Your task to perform on an android device: Search for pizza restaurants on Maps Image 0: 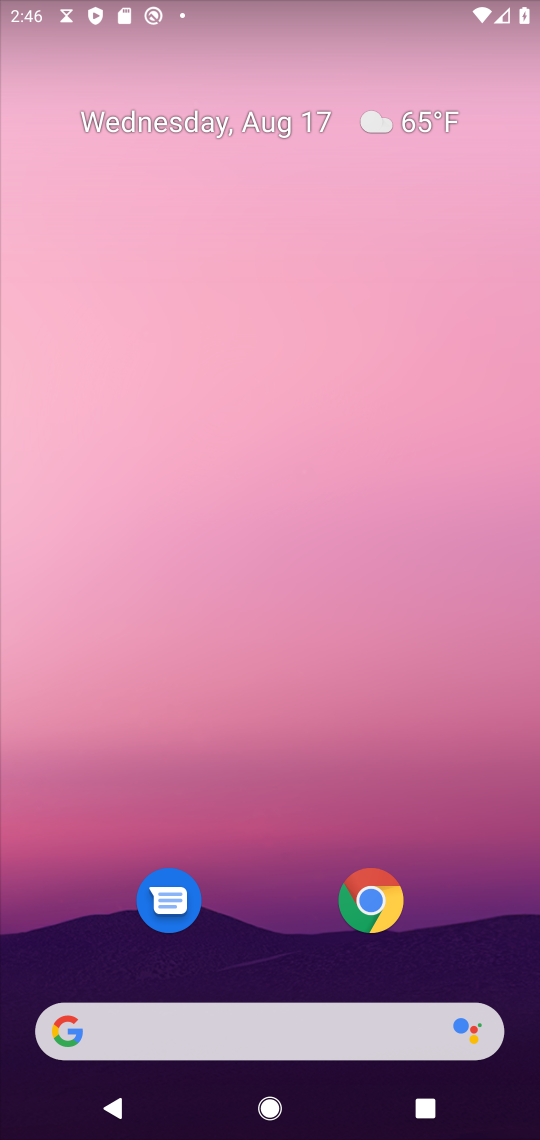
Step 0: drag from (233, 1025) to (305, 289)
Your task to perform on an android device: Search for pizza restaurants on Maps Image 1: 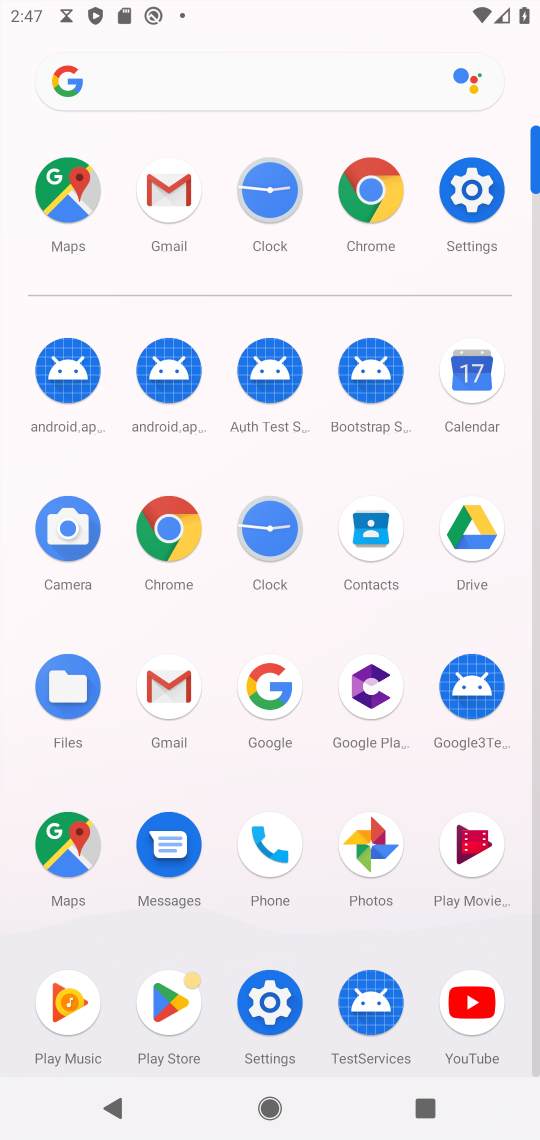
Step 1: click (70, 849)
Your task to perform on an android device: Search for pizza restaurants on Maps Image 2: 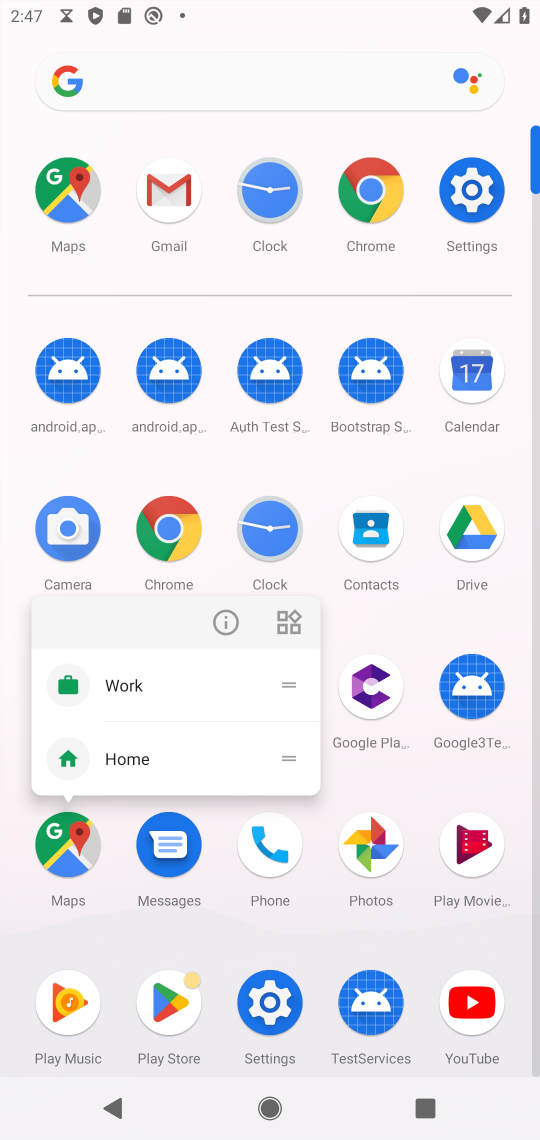
Step 2: click (70, 849)
Your task to perform on an android device: Search for pizza restaurants on Maps Image 3: 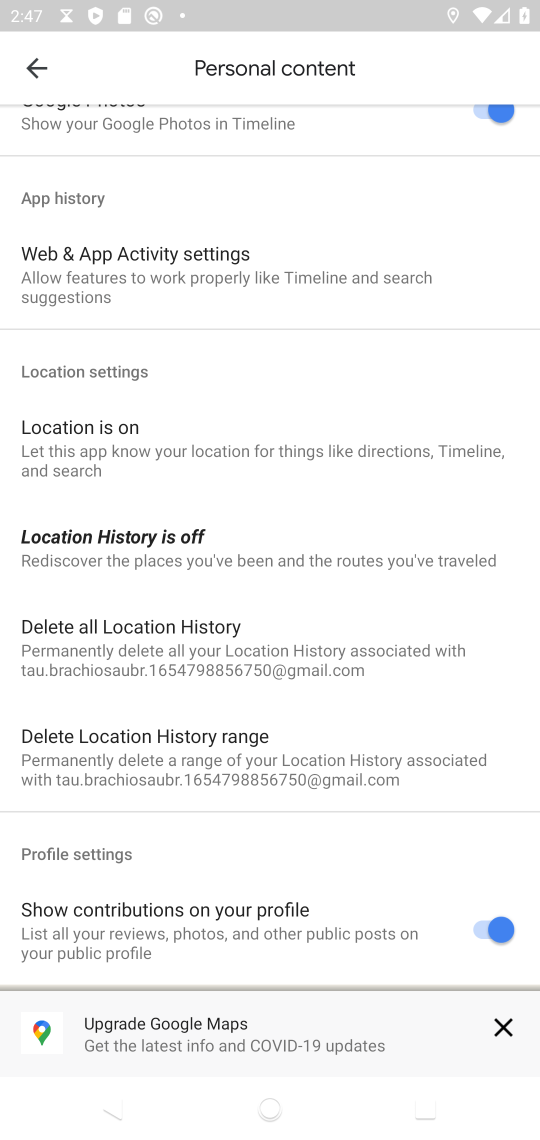
Step 3: press back button
Your task to perform on an android device: Search for pizza restaurants on Maps Image 4: 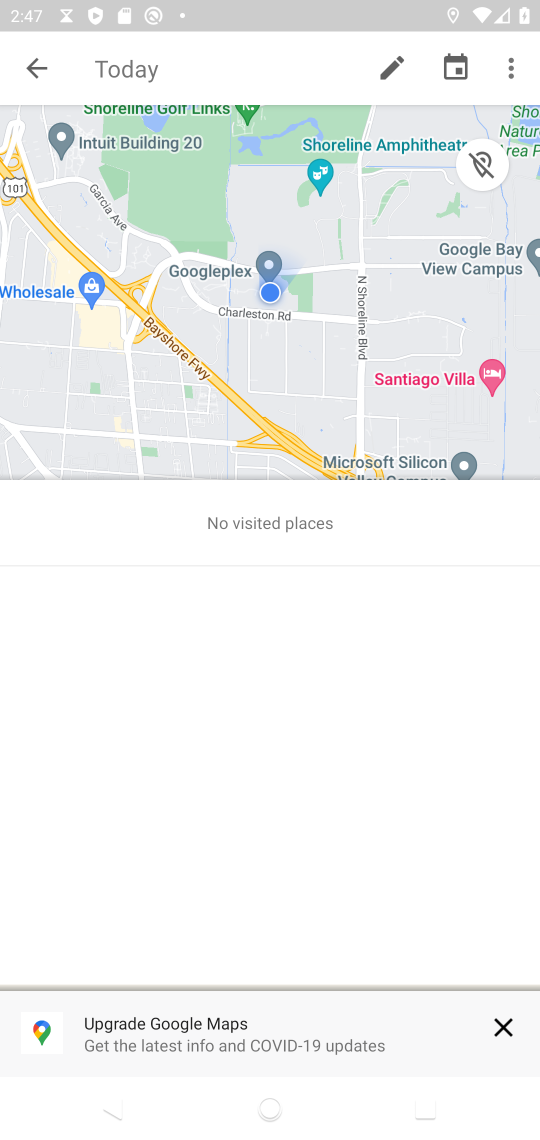
Step 4: press back button
Your task to perform on an android device: Search for pizza restaurants on Maps Image 5: 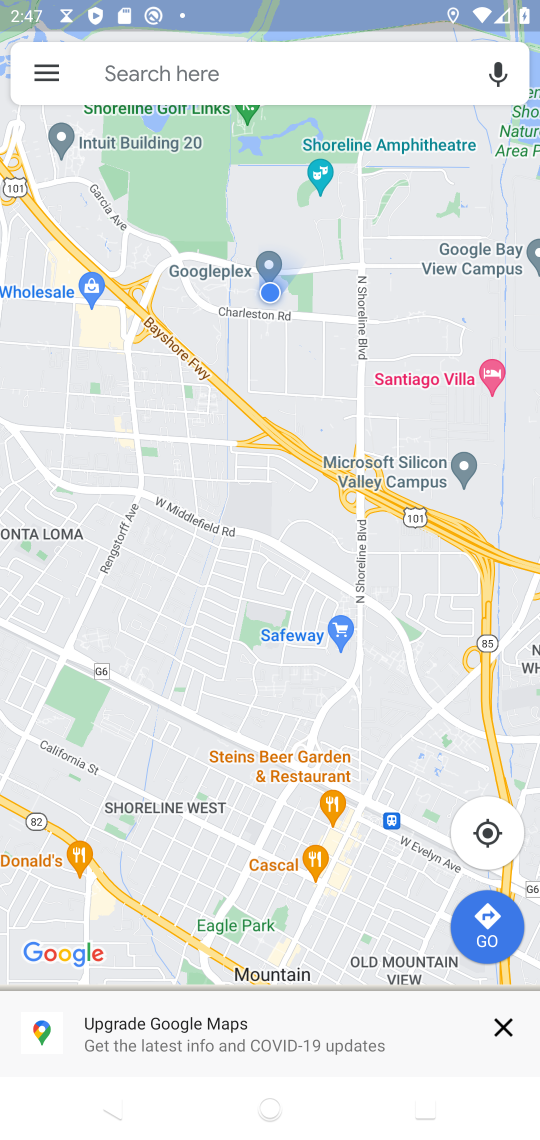
Step 5: click (239, 72)
Your task to perform on an android device: Search for pizza restaurants on Maps Image 6: 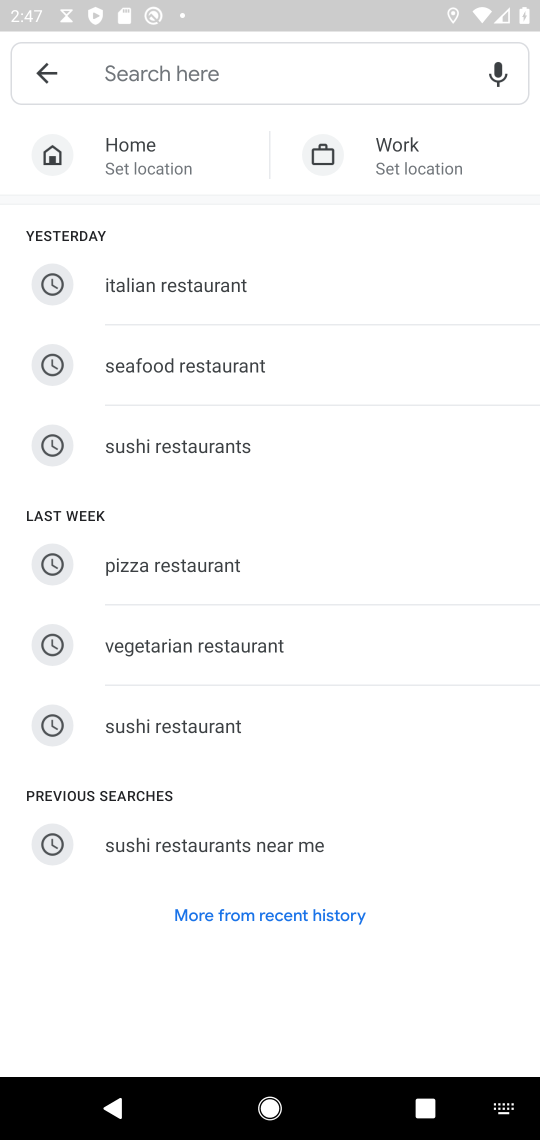
Step 6: click (162, 562)
Your task to perform on an android device: Search for pizza restaurants on Maps Image 7: 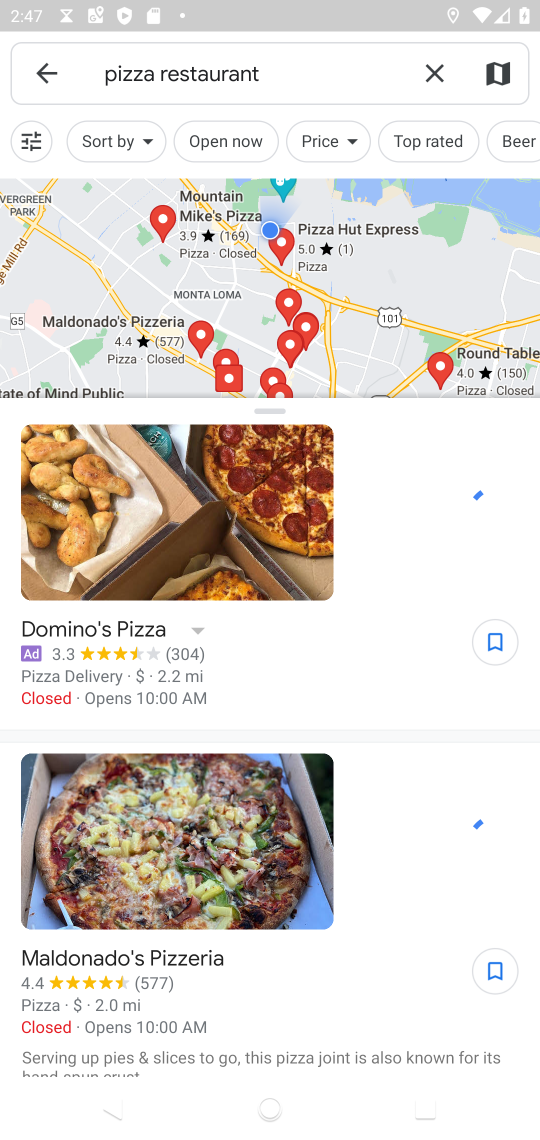
Step 7: task complete